Your task to perform on an android device: Go to CNN.com Image 0: 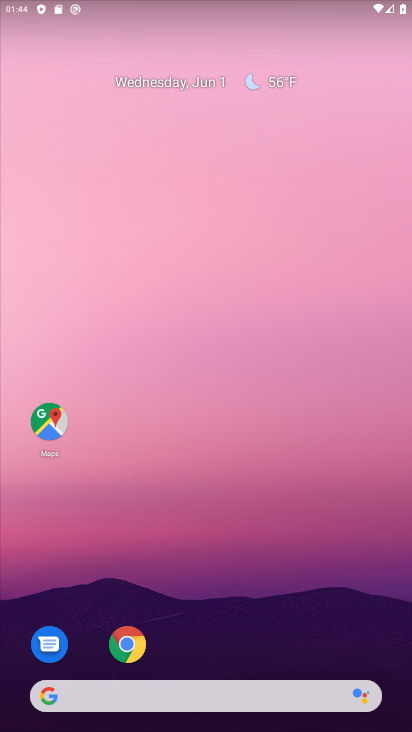
Step 0: drag from (185, 643) to (185, 328)
Your task to perform on an android device: Go to CNN.com Image 1: 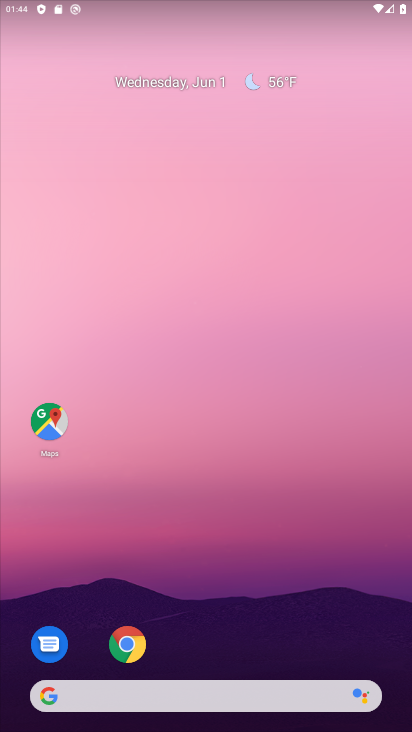
Step 1: drag from (213, 690) to (220, 280)
Your task to perform on an android device: Go to CNN.com Image 2: 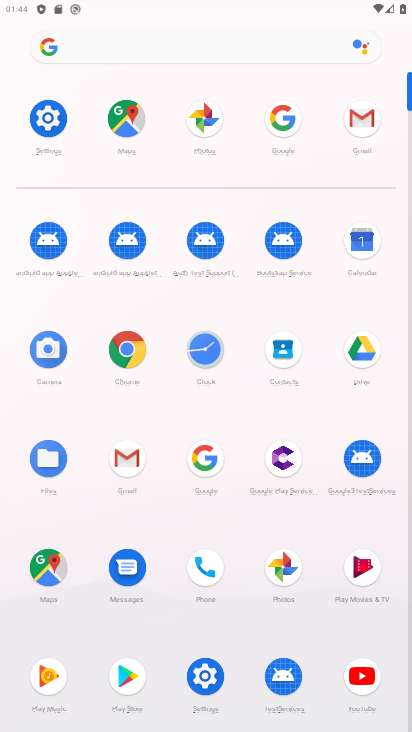
Step 2: click (206, 457)
Your task to perform on an android device: Go to CNN.com Image 3: 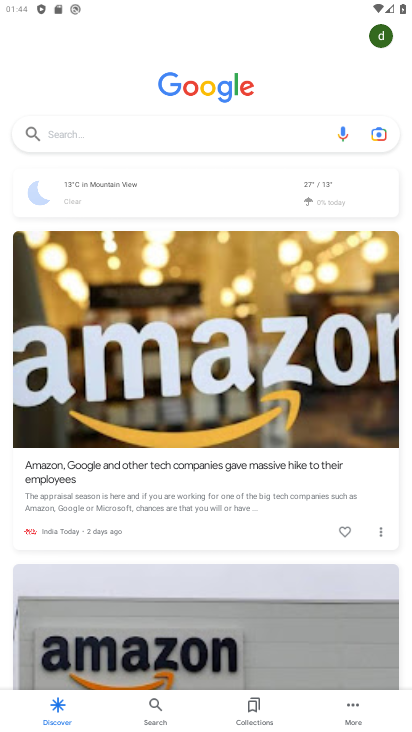
Step 3: click (118, 131)
Your task to perform on an android device: Go to CNN.com Image 4: 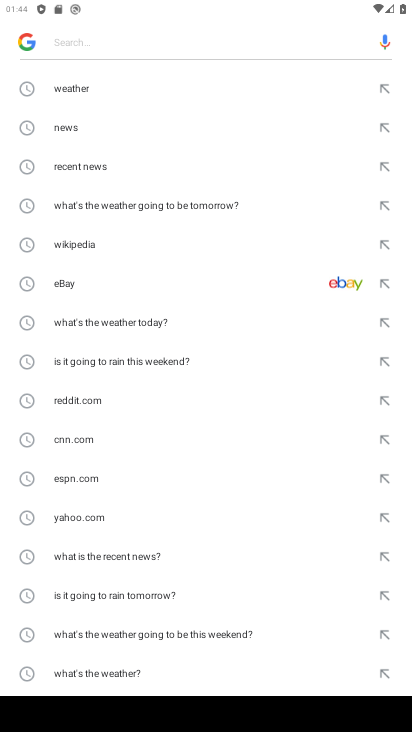
Step 4: click (69, 435)
Your task to perform on an android device: Go to CNN.com Image 5: 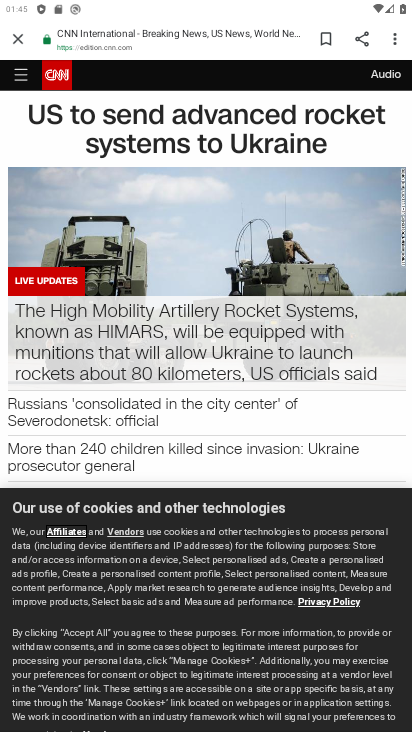
Step 5: task complete